Your task to perform on an android device: add a contact Image 0: 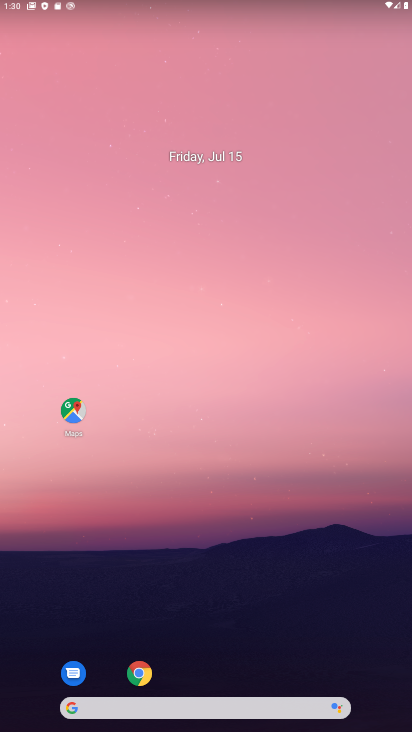
Step 0: drag from (378, 358) to (364, 188)
Your task to perform on an android device: add a contact Image 1: 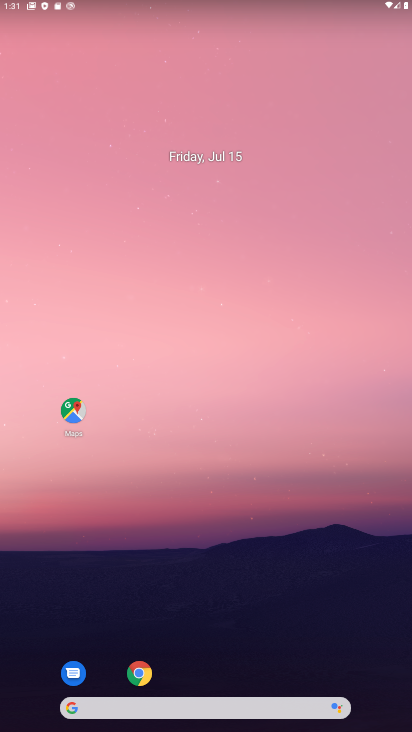
Step 1: drag from (380, 568) to (309, 12)
Your task to perform on an android device: add a contact Image 2: 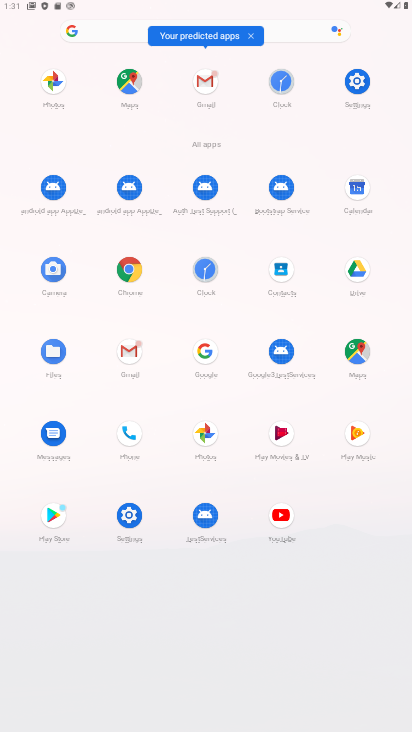
Step 2: click (280, 275)
Your task to perform on an android device: add a contact Image 3: 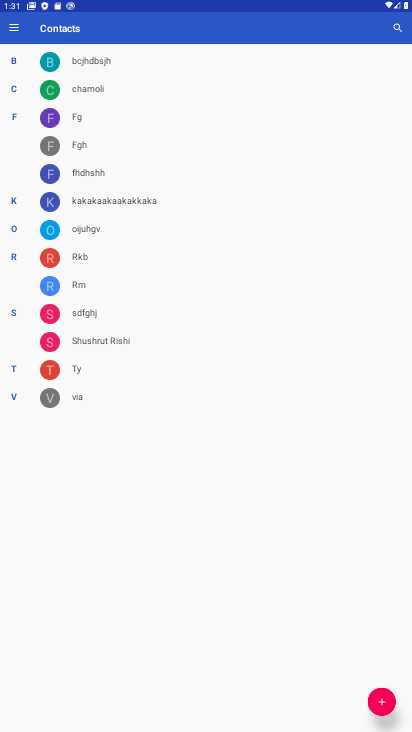
Step 3: click (386, 680)
Your task to perform on an android device: add a contact Image 4: 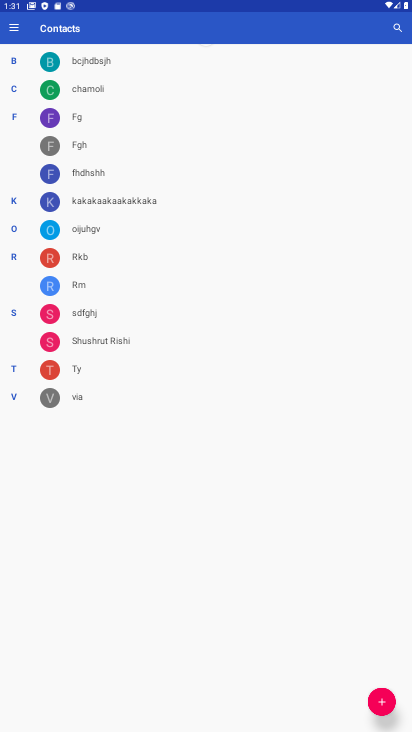
Step 4: click (385, 694)
Your task to perform on an android device: add a contact Image 5: 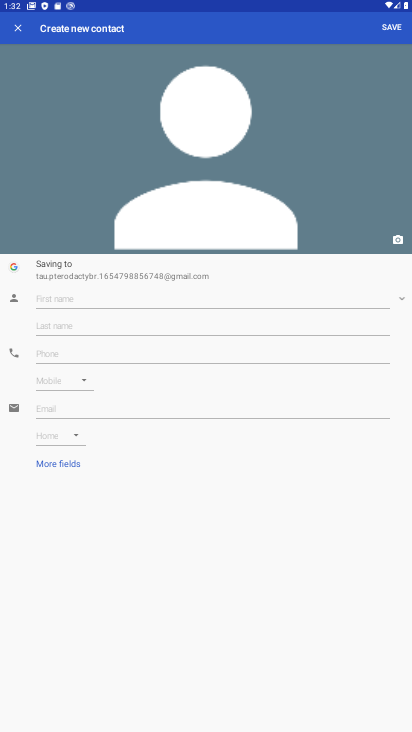
Step 5: click (203, 298)
Your task to perform on an android device: add a contact Image 6: 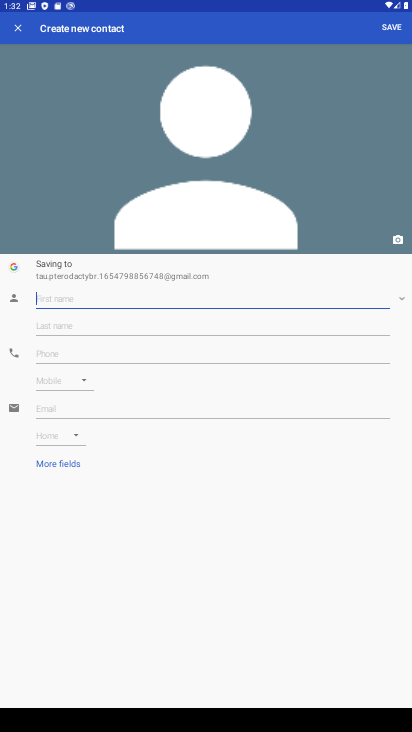
Step 6: type "hjgjvvghcgv"
Your task to perform on an android device: add a contact Image 7: 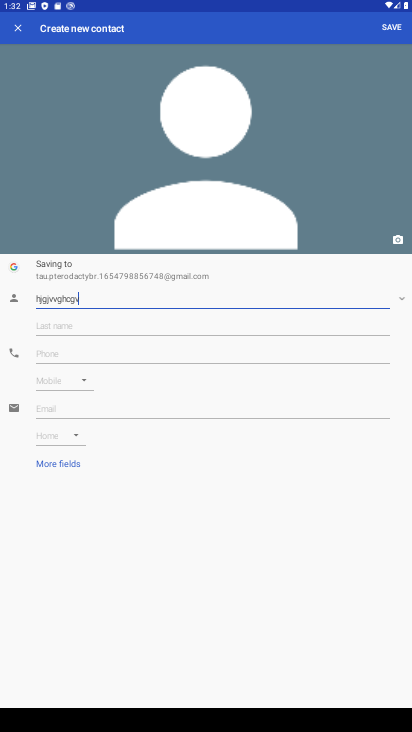
Step 7: click (120, 333)
Your task to perform on an android device: add a contact Image 8: 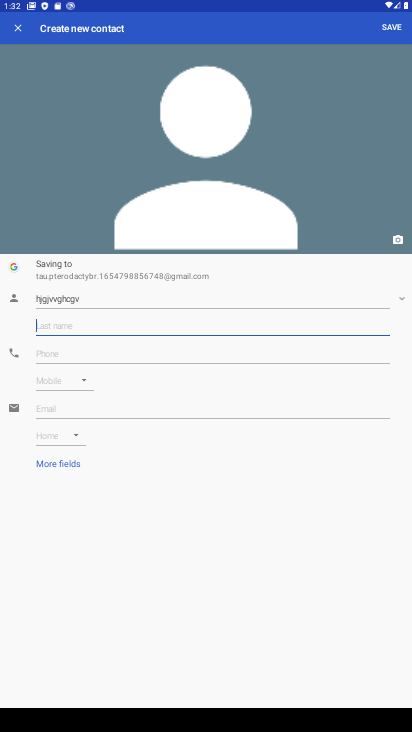
Step 8: type "gfgxfdfgchf"
Your task to perform on an android device: add a contact Image 9: 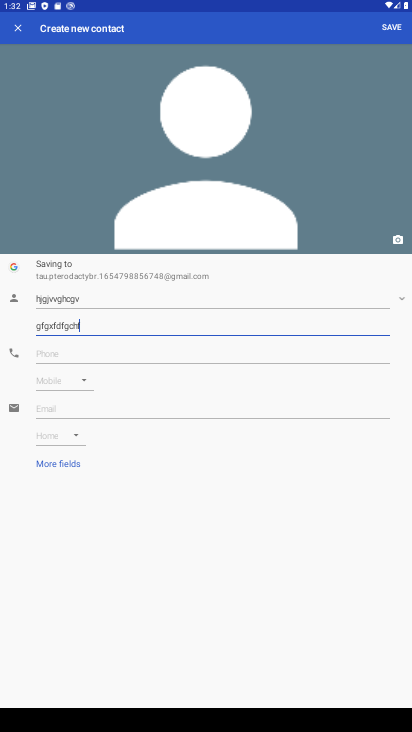
Step 9: click (86, 350)
Your task to perform on an android device: add a contact Image 10: 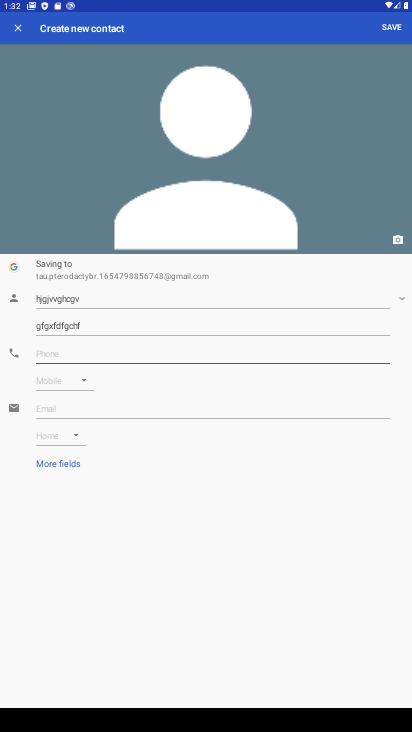
Step 10: type "568774754365"
Your task to perform on an android device: add a contact Image 11: 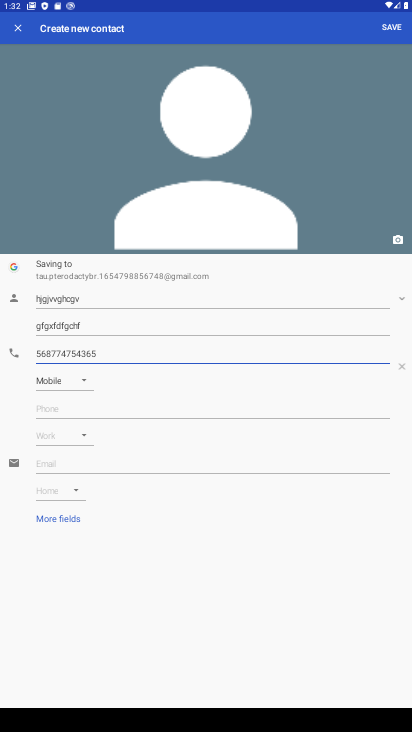
Step 11: click (390, 24)
Your task to perform on an android device: add a contact Image 12: 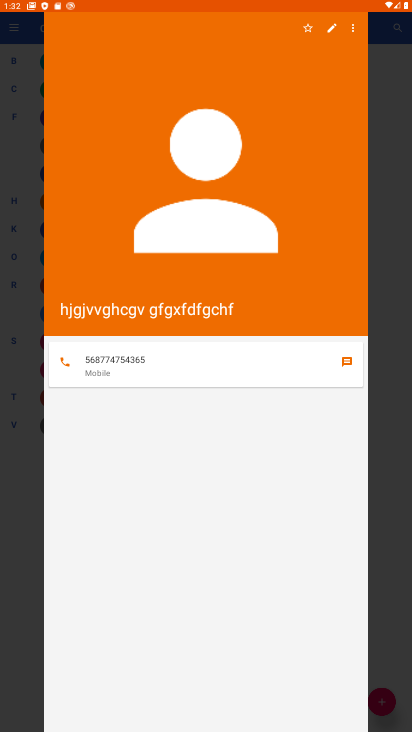
Step 12: task complete